Your task to perform on an android device: Is it going to rain tomorrow? Image 0: 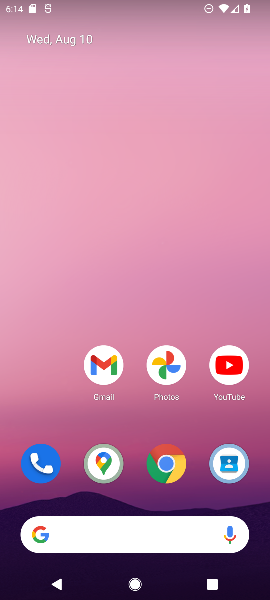
Step 0: click (102, 530)
Your task to perform on an android device: Is it going to rain tomorrow? Image 1: 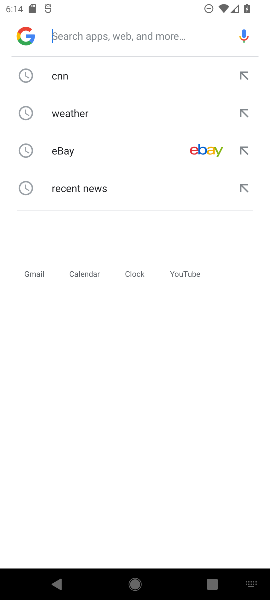
Step 1: click (81, 106)
Your task to perform on an android device: Is it going to rain tomorrow? Image 2: 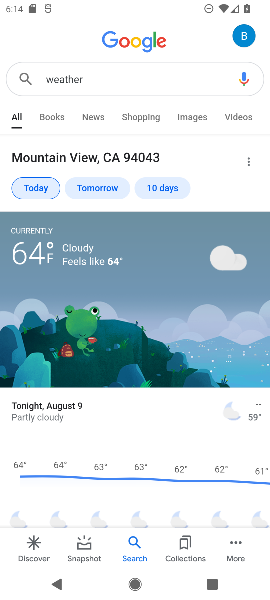
Step 2: click (97, 186)
Your task to perform on an android device: Is it going to rain tomorrow? Image 3: 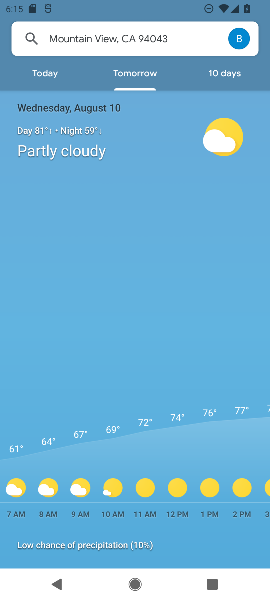
Step 3: task complete